Your task to perform on an android device: Check the weather Image 0: 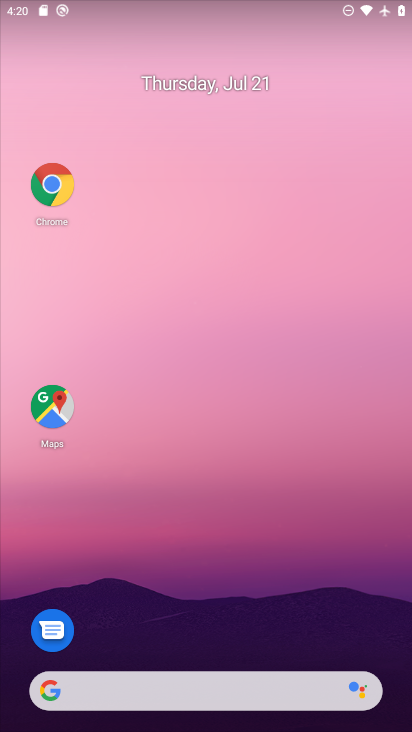
Step 0: click (239, 688)
Your task to perform on an android device: Check the weather Image 1: 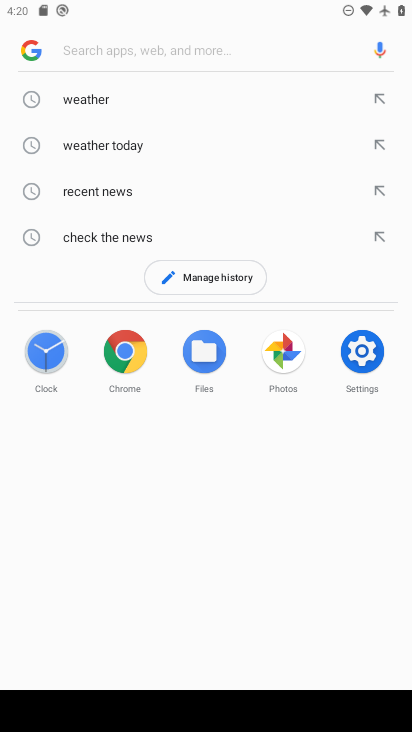
Step 1: click (113, 89)
Your task to perform on an android device: Check the weather Image 2: 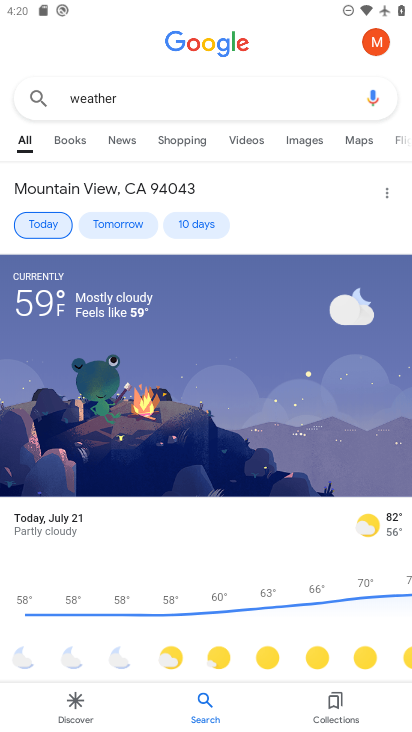
Step 2: task complete